Your task to perform on an android device: add a contact in the contacts app Image 0: 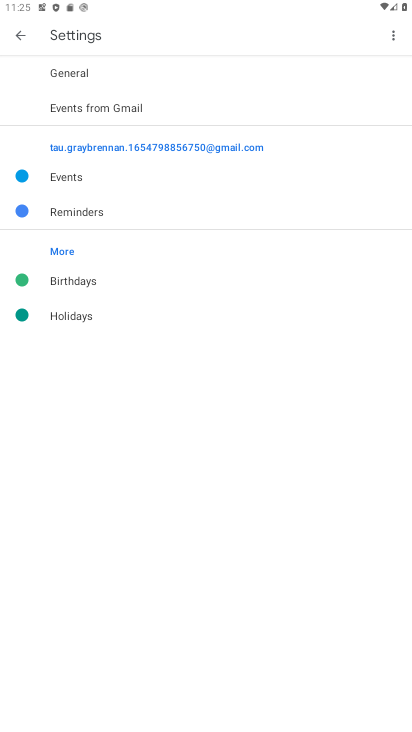
Step 0: press home button
Your task to perform on an android device: add a contact in the contacts app Image 1: 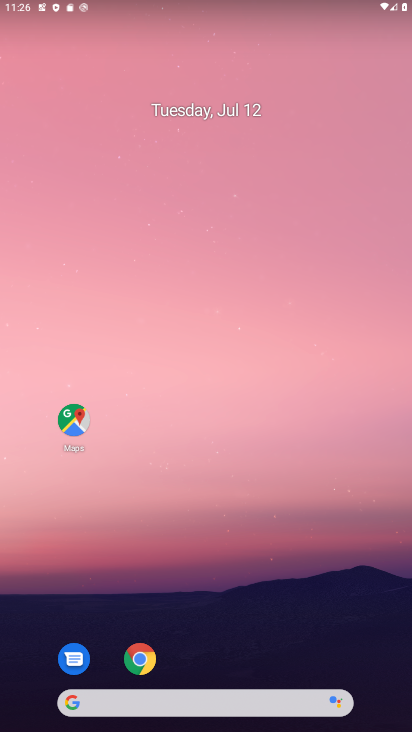
Step 1: drag from (295, 583) to (307, 299)
Your task to perform on an android device: add a contact in the contacts app Image 2: 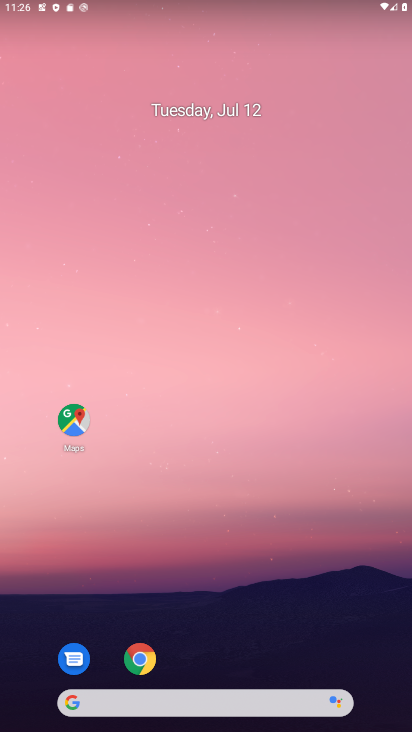
Step 2: drag from (304, 696) to (332, 320)
Your task to perform on an android device: add a contact in the contacts app Image 3: 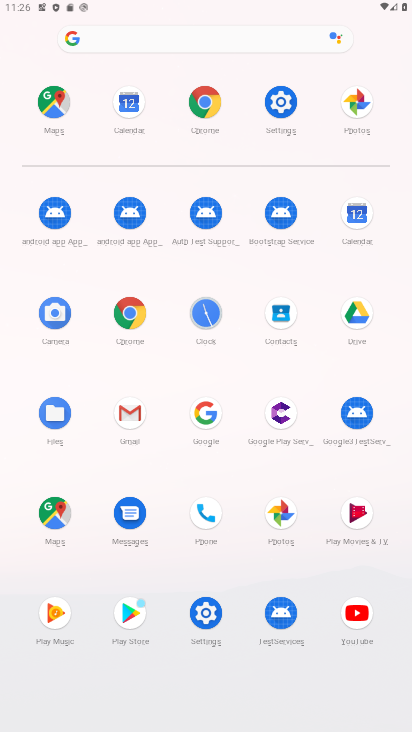
Step 3: click (284, 316)
Your task to perform on an android device: add a contact in the contacts app Image 4: 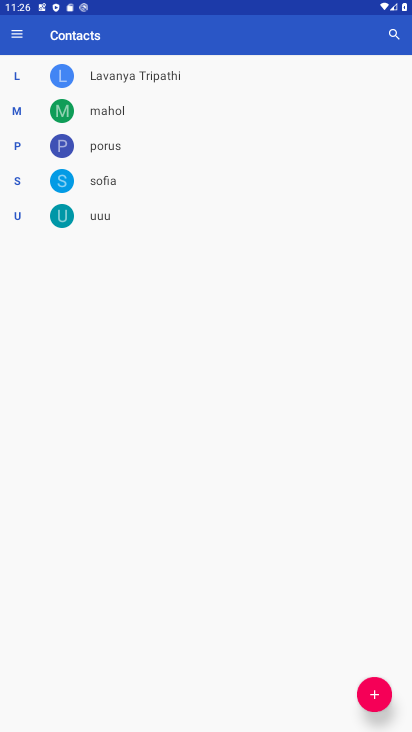
Step 4: click (389, 695)
Your task to perform on an android device: add a contact in the contacts app Image 5: 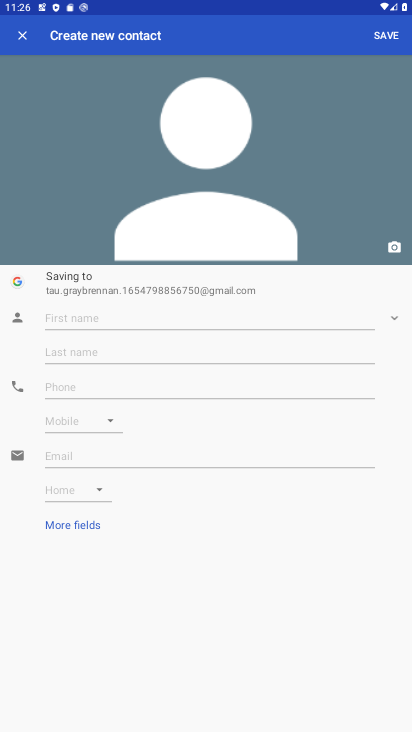
Step 5: click (130, 312)
Your task to perform on an android device: add a contact in the contacts app Image 6: 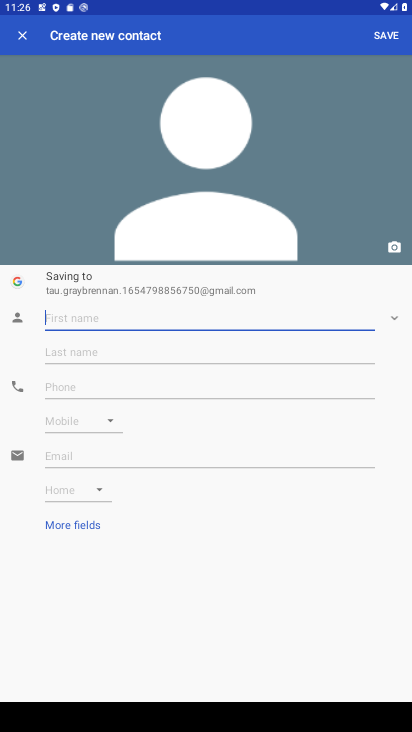
Step 6: type "neil"
Your task to perform on an android device: add a contact in the contacts app Image 7: 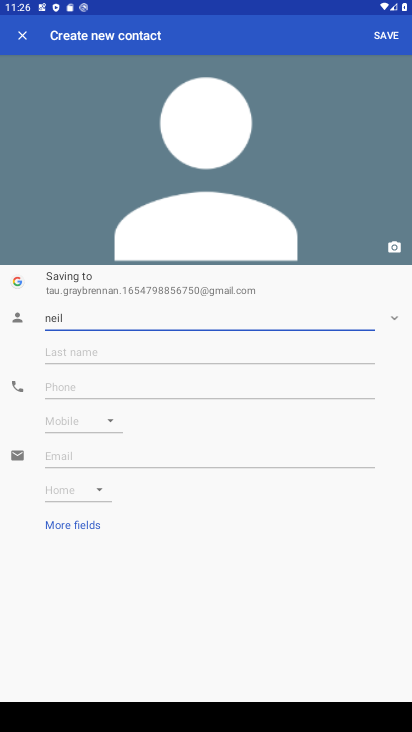
Step 7: click (90, 394)
Your task to perform on an android device: add a contact in the contacts app Image 8: 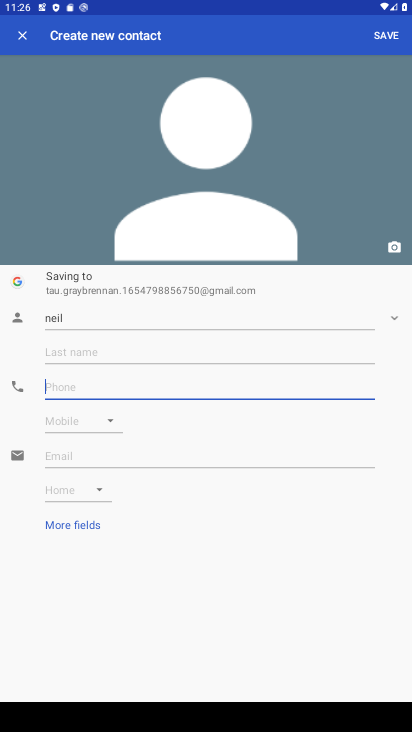
Step 8: type "8765434565"
Your task to perform on an android device: add a contact in the contacts app Image 9: 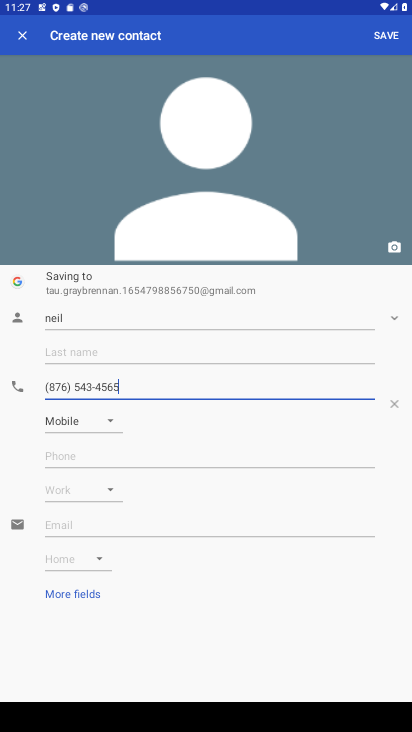
Step 9: click (392, 30)
Your task to perform on an android device: add a contact in the contacts app Image 10: 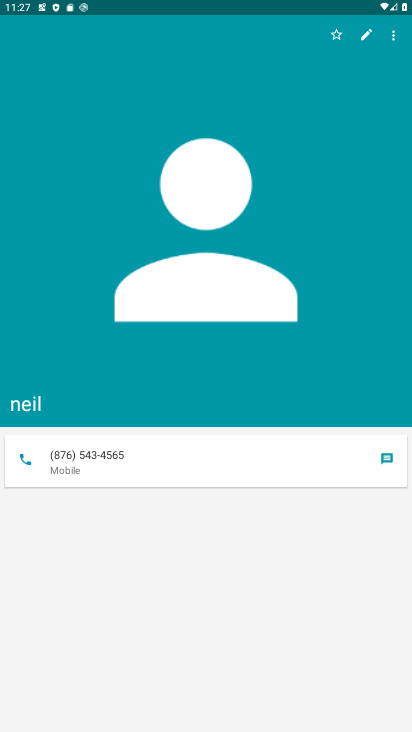
Step 10: task complete